Your task to perform on an android device: Open Google Chrome Image 0: 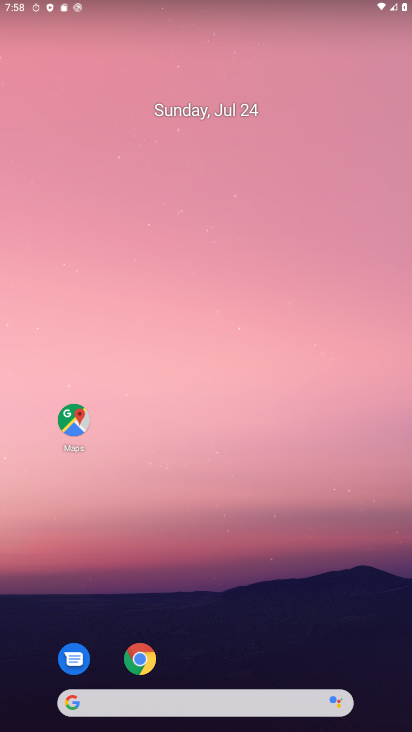
Step 0: drag from (281, 638) to (281, 224)
Your task to perform on an android device: Open Google Chrome Image 1: 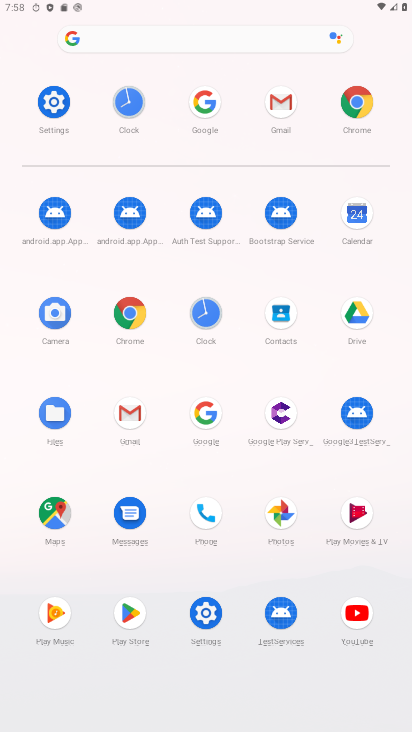
Step 1: click (211, 422)
Your task to perform on an android device: Open Google Chrome Image 2: 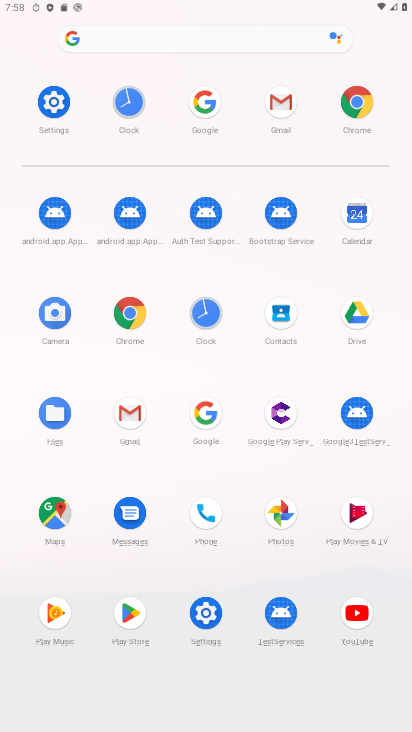
Step 2: click (208, 421)
Your task to perform on an android device: Open Google Chrome Image 3: 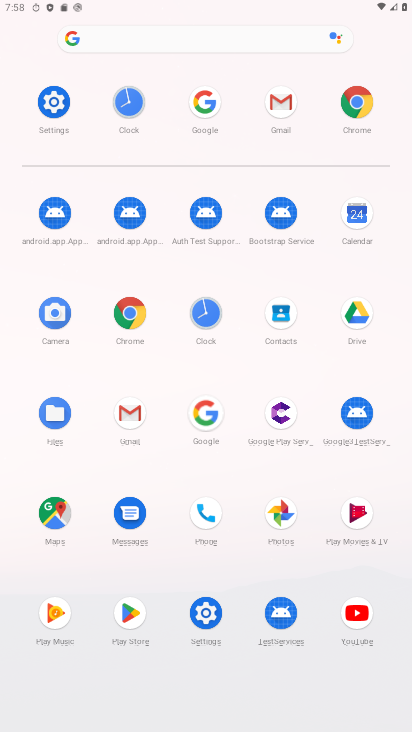
Step 3: click (199, 416)
Your task to perform on an android device: Open Google Chrome Image 4: 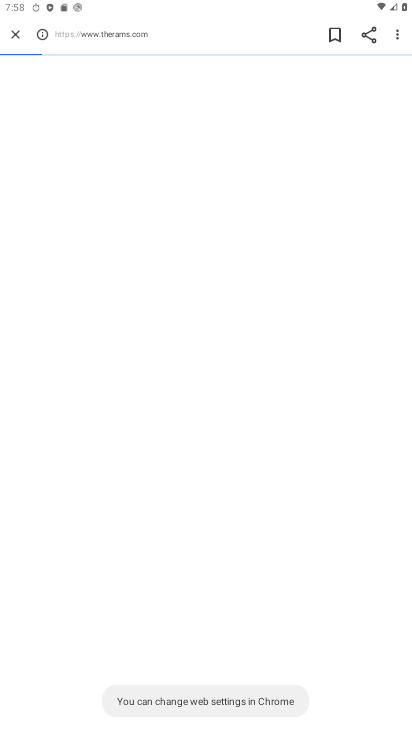
Step 4: press back button
Your task to perform on an android device: Open Google Chrome Image 5: 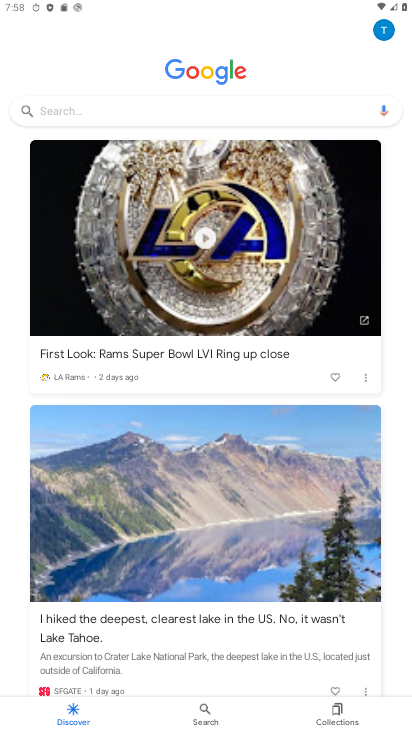
Step 5: press back button
Your task to perform on an android device: Open Google Chrome Image 6: 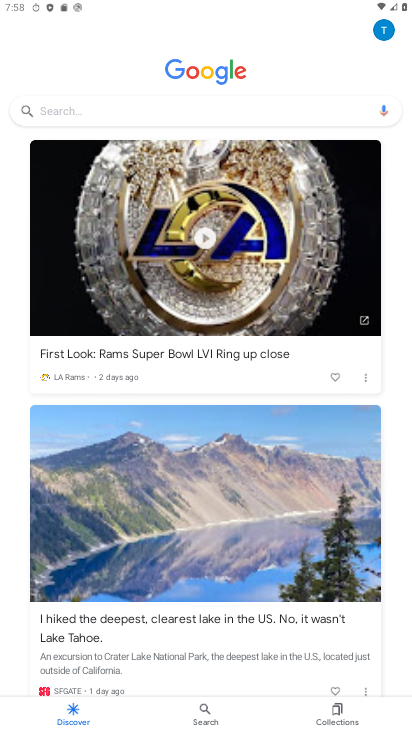
Step 6: press back button
Your task to perform on an android device: Open Google Chrome Image 7: 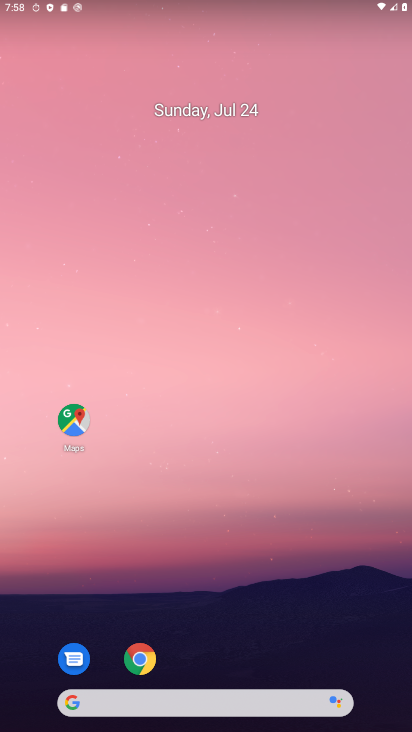
Step 7: drag from (208, 495) to (142, 53)
Your task to perform on an android device: Open Google Chrome Image 8: 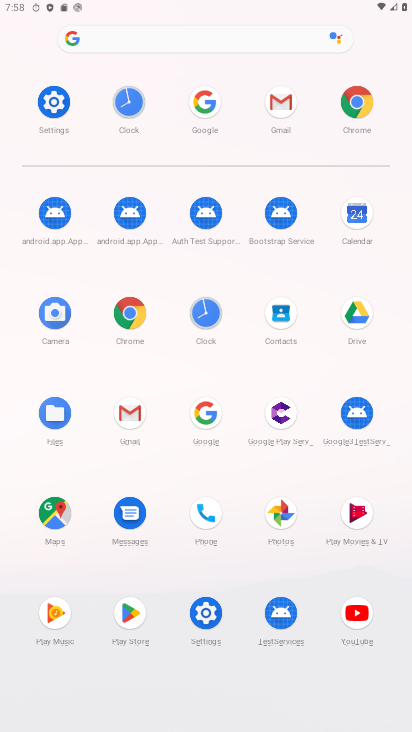
Step 8: click (130, 295)
Your task to perform on an android device: Open Google Chrome Image 9: 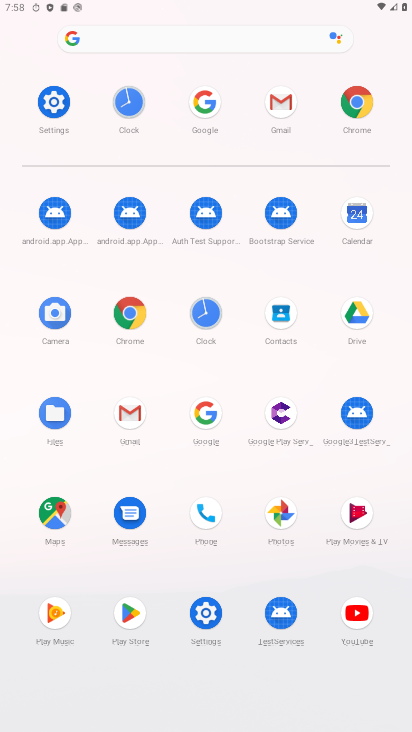
Step 9: click (134, 295)
Your task to perform on an android device: Open Google Chrome Image 10: 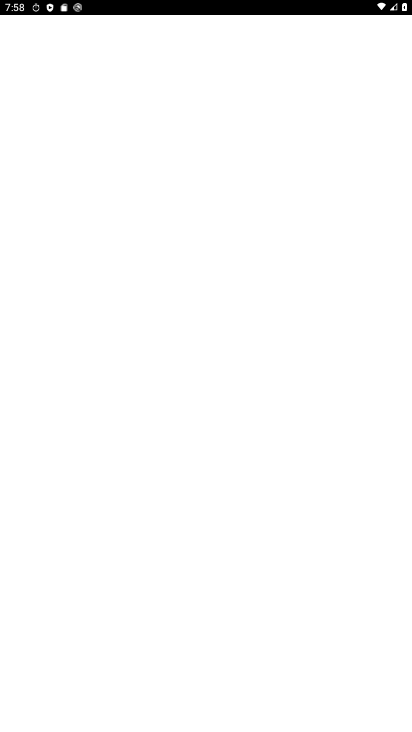
Step 10: click (142, 301)
Your task to perform on an android device: Open Google Chrome Image 11: 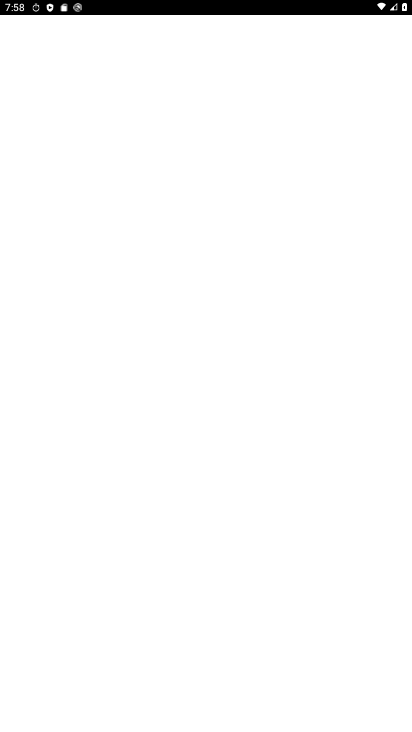
Step 11: click (148, 305)
Your task to perform on an android device: Open Google Chrome Image 12: 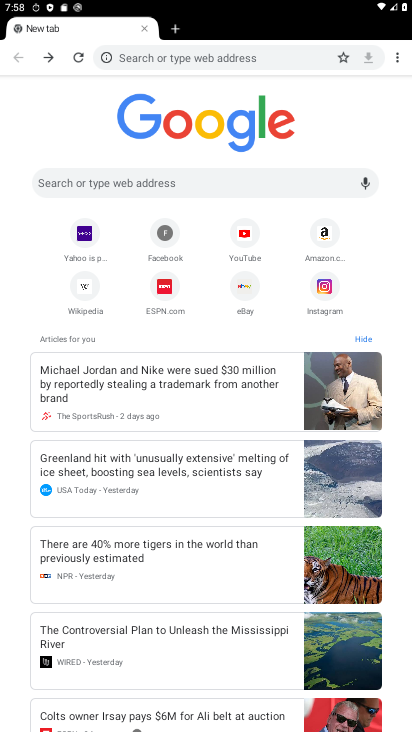
Step 12: drag from (179, 527) to (208, 231)
Your task to perform on an android device: Open Google Chrome Image 13: 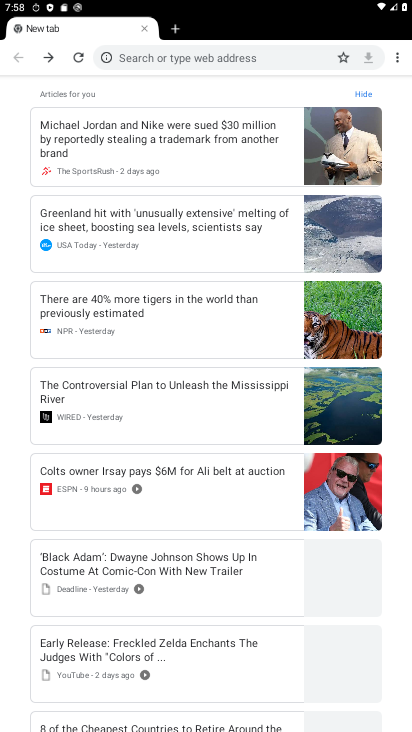
Step 13: drag from (219, 525) to (205, 287)
Your task to perform on an android device: Open Google Chrome Image 14: 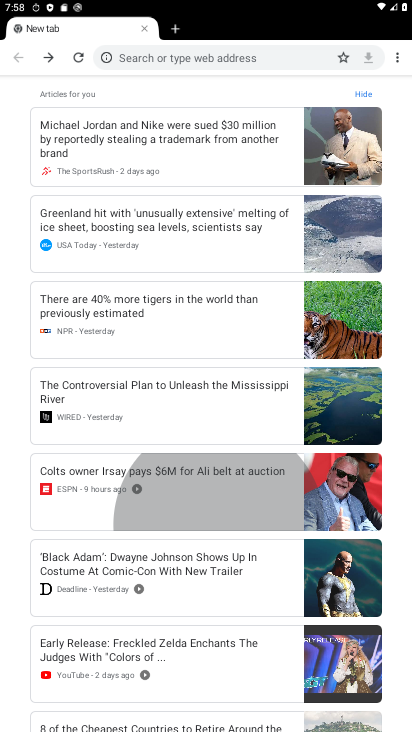
Step 14: click (244, 497)
Your task to perform on an android device: Open Google Chrome Image 15: 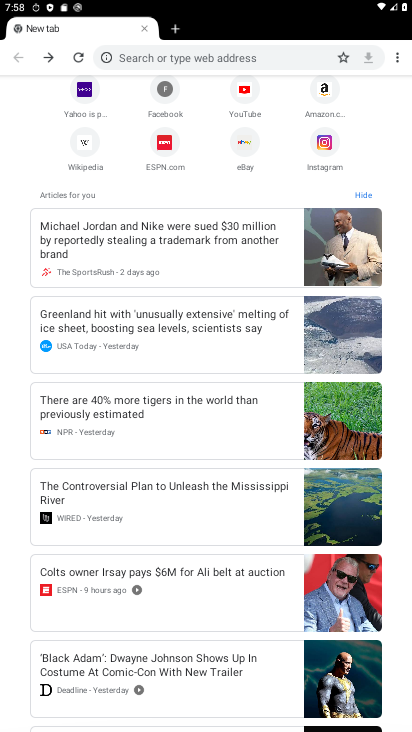
Step 15: task complete